Your task to perform on an android device: Open notification settings Image 0: 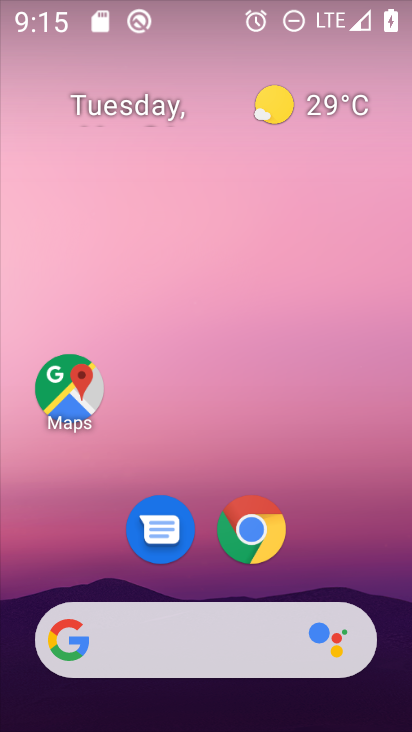
Step 0: drag from (382, 625) to (263, 2)
Your task to perform on an android device: Open notification settings Image 1: 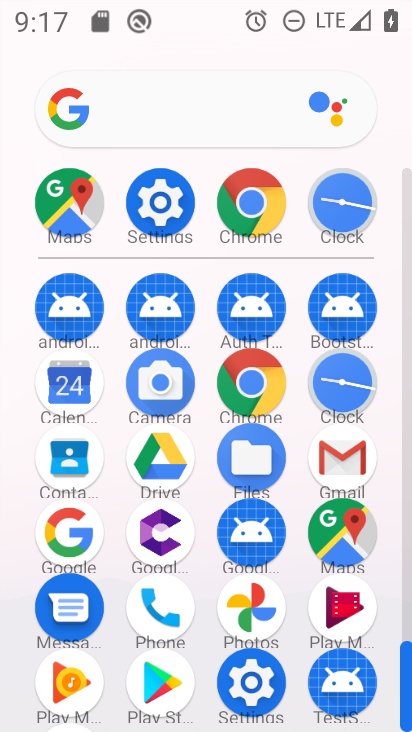
Step 1: click (223, 684)
Your task to perform on an android device: Open notification settings Image 2: 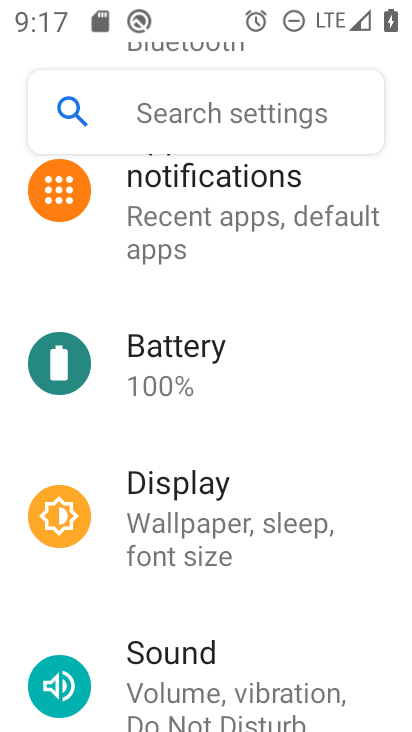
Step 2: click (249, 228)
Your task to perform on an android device: Open notification settings Image 3: 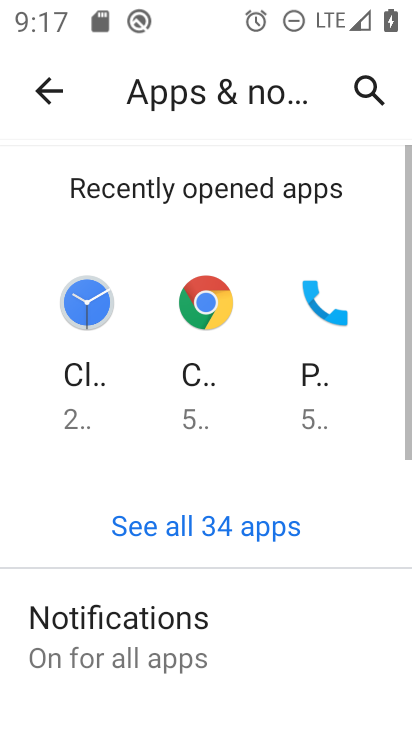
Step 3: click (191, 663)
Your task to perform on an android device: Open notification settings Image 4: 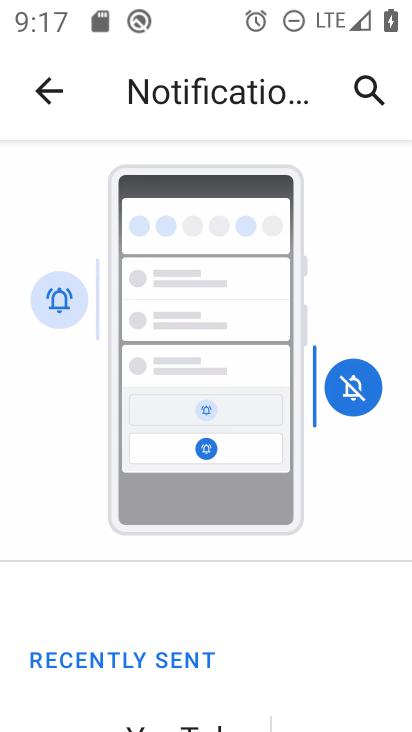
Step 4: task complete